Your task to perform on an android device: move an email to a new category in the gmail app Image 0: 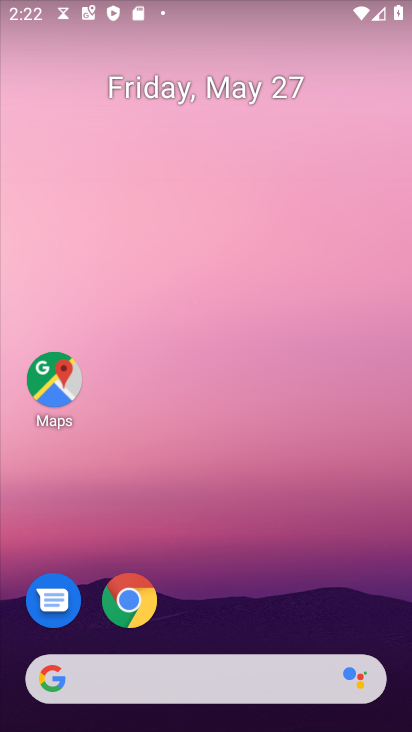
Step 0: drag from (262, 447) to (211, 48)
Your task to perform on an android device: move an email to a new category in the gmail app Image 1: 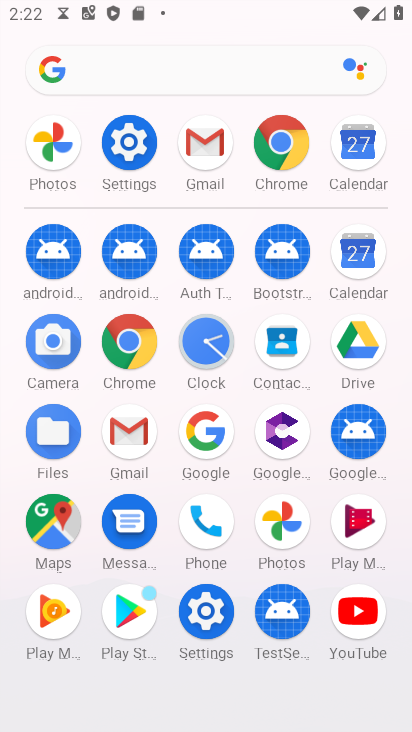
Step 1: drag from (3, 554) to (15, 201)
Your task to perform on an android device: move an email to a new category in the gmail app Image 2: 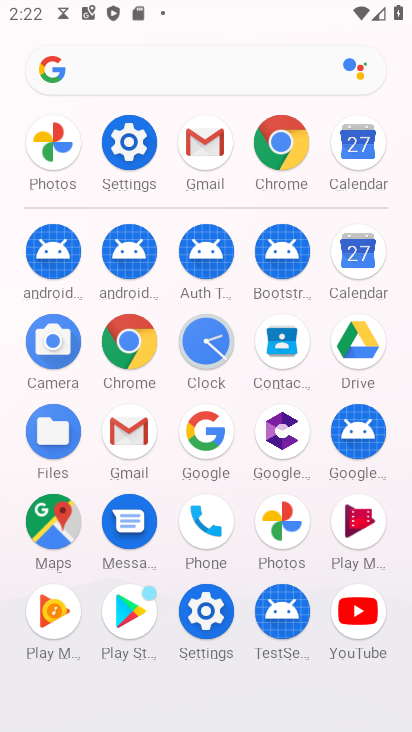
Step 2: click (124, 430)
Your task to perform on an android device: move an email to a new category in the gmail app Image 3: 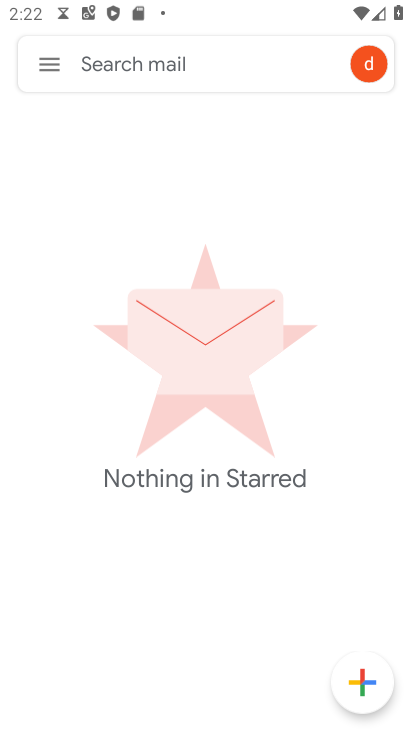
Step 3: click (44, 58)
Your task to perform on an android device: move an email to a new category in the gmail app Image 4: 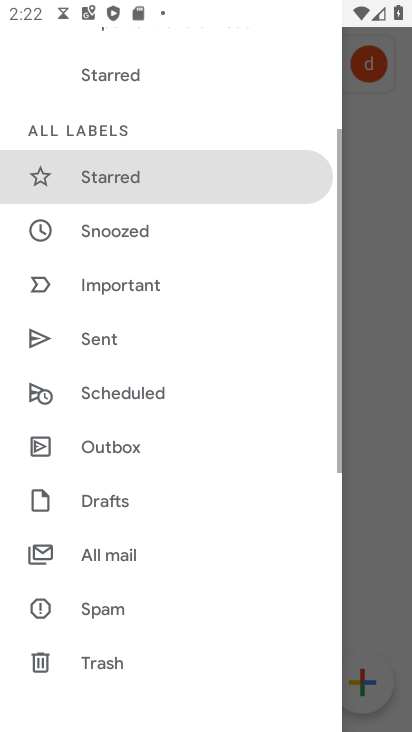
Step 4: drag from (279, 638) to (265, 108)
Your task to perform on an android device: move an email to a new category in the gmail app Image 5: 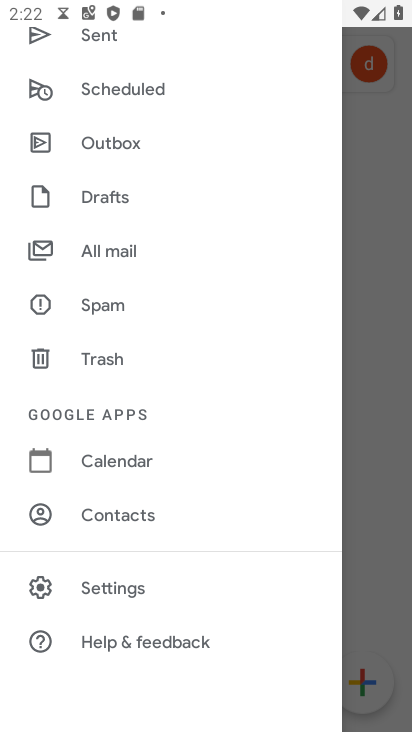
Step 5: click (153, 248)
Your task to perform on an android device: move an email to a new category in the gmail app Image 6: 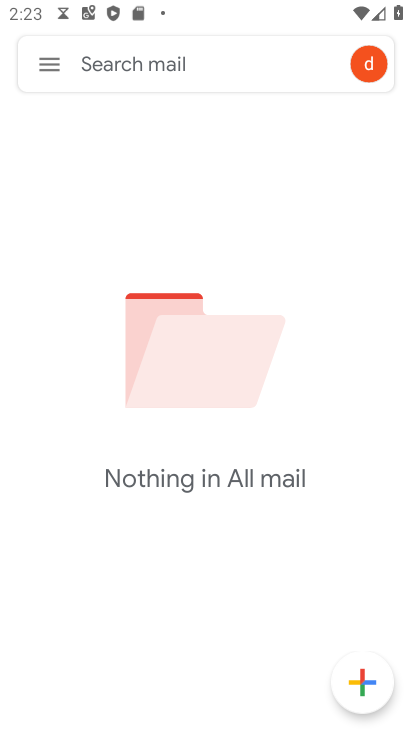
Step 6: click (44, 54)
Your task to perform on an android device: move an email to a new category in the gmail app Image 7: 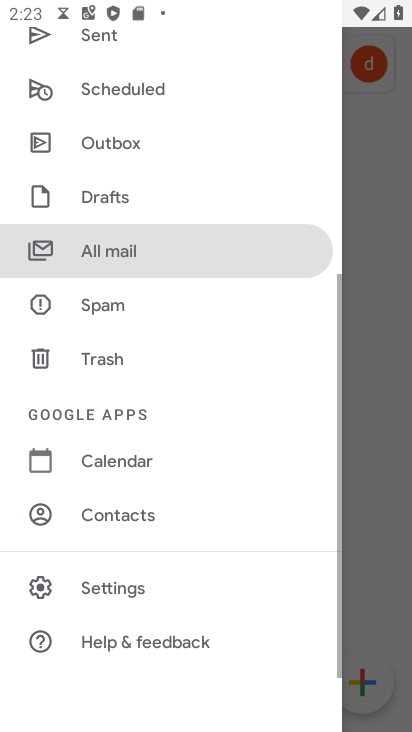
Step 7: drag from (238, 170) to (275, 541)
Your task to perform on an android device: move an email to a new category in the gmail app Image 8: 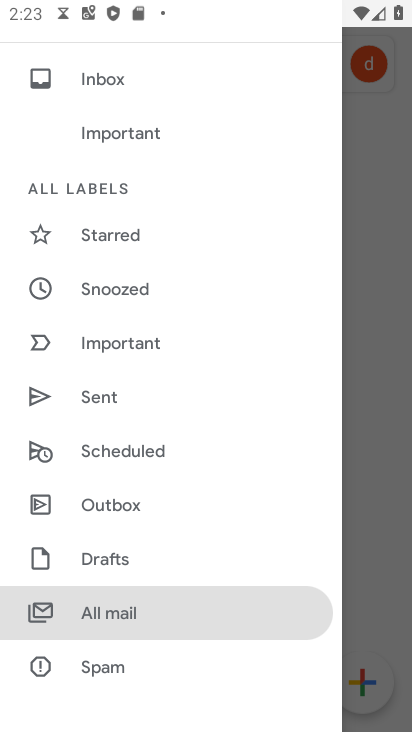
Step 8: click (126, 385)
Your task to perform on an android device: move an email to a new category in the gmail app Image 9: 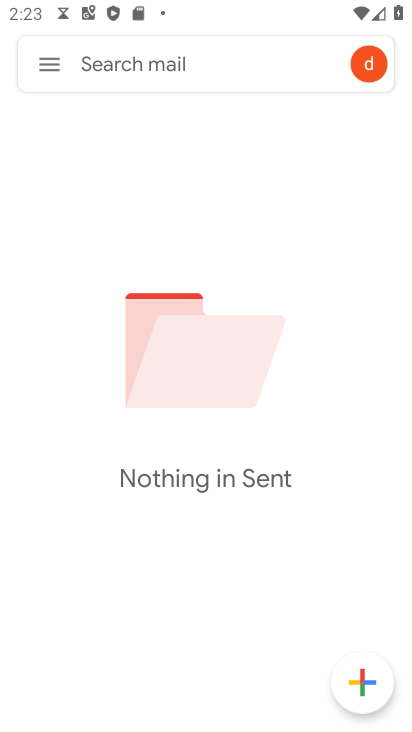
Step 9: click (65, 64)
Your task to perform on an android device: move an email to a new category in the gmail app Image 10: 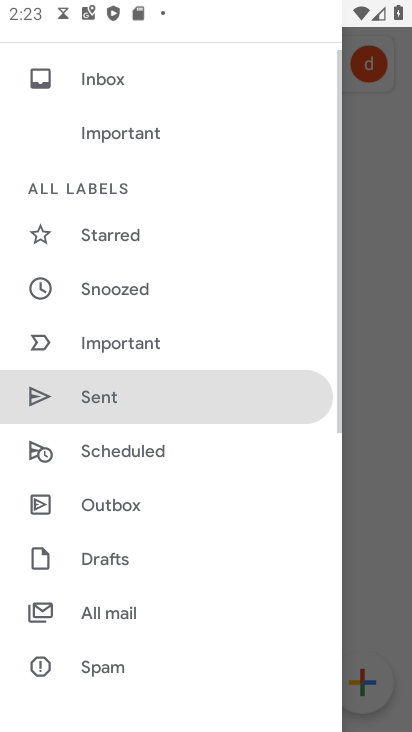
Step 10: click (136, 238)
Your task to perform on an android device: move an email to a new category in the gmail app Image 11: 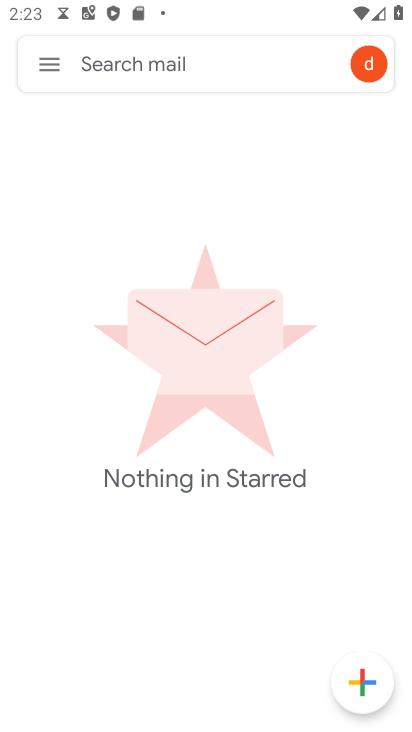
Step 11: click (53, 64)
Your task to perform on an android device: move an email to a new category in the gmail app Image 12: 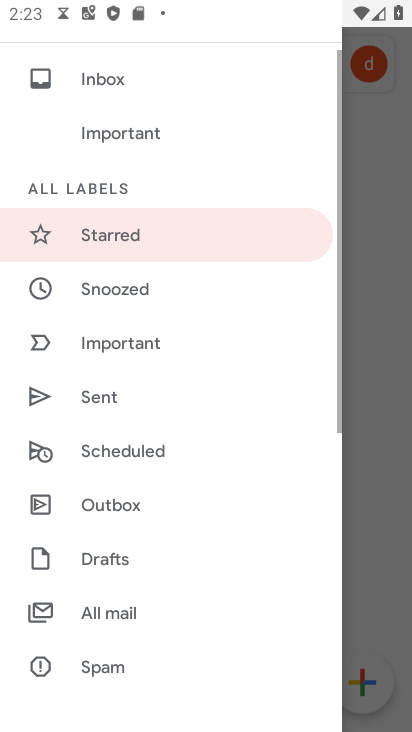
Step 12: drag from (255, 163) to (235, 671)
Your task to perform on an android device: move an email to a new category in the gmail app Image 13: 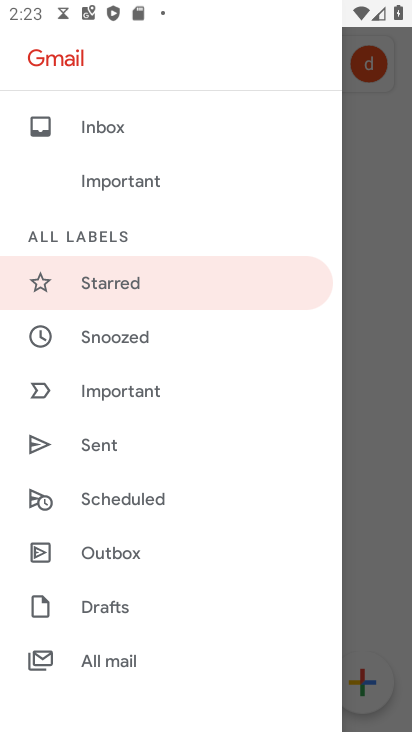
Step 13: click (146, 135)
Your task to perform on an android device: move an email to a new category in the gmail app Image 14: 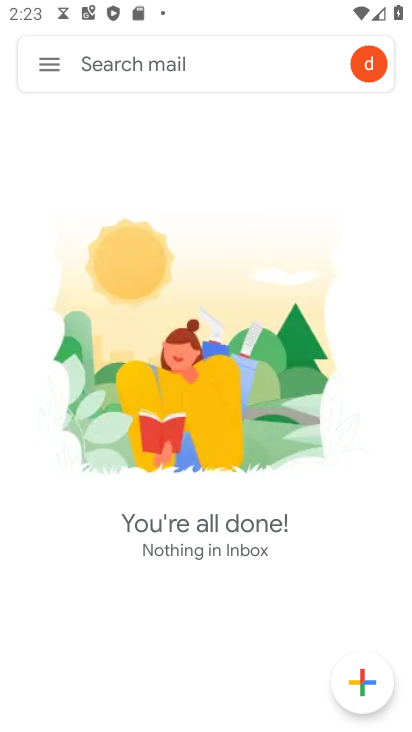
Step 14: click (54, 64)
Your task to perform on an android device: move an email to a new category in the gmail app Image 15: 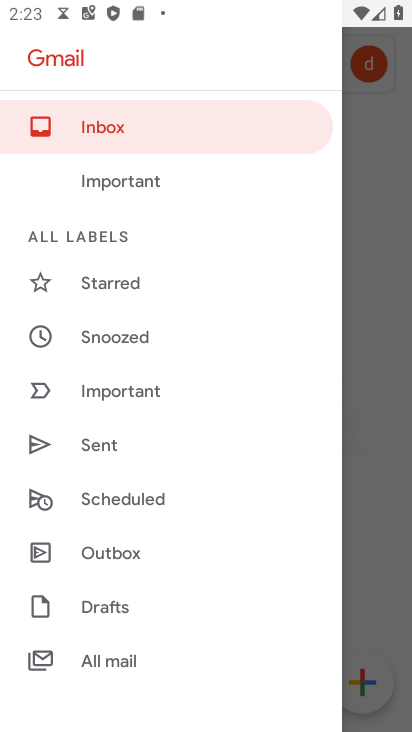
Step 15: click (131, 662)
Your task to perform on an android device: move an email to a new category in the gmail app Image 16: 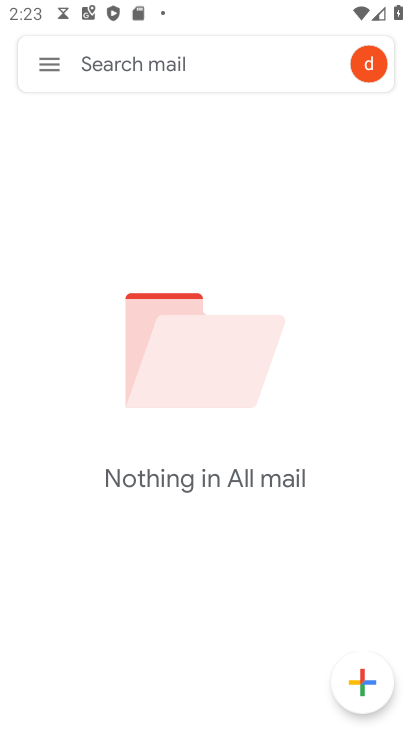
Step 16: task complete